Your task to perform on an android device: Go to Amazon Image 0: 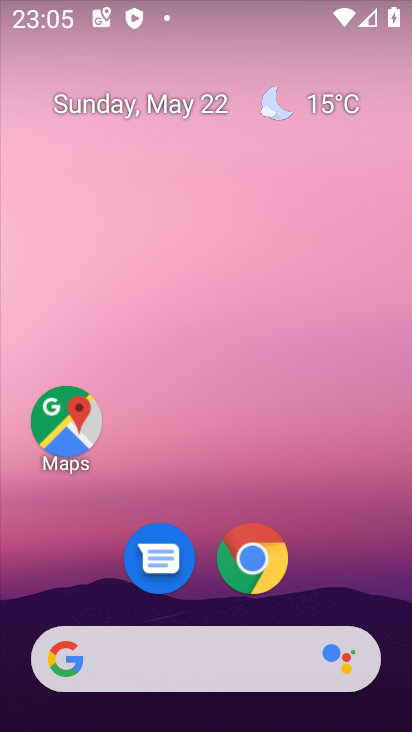
Step 0: click (259, 562)
Your task to perform on an android device: Go to Amazon Image 1: 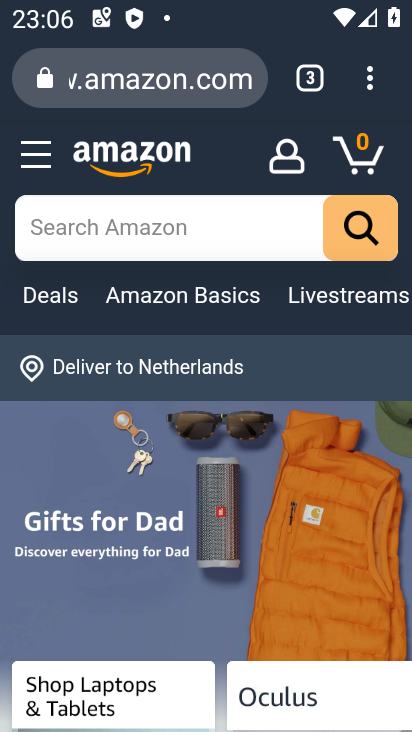
Step 1: task complete